Your task to perform on an android device: toggle data saver in the chrome app Image 0: 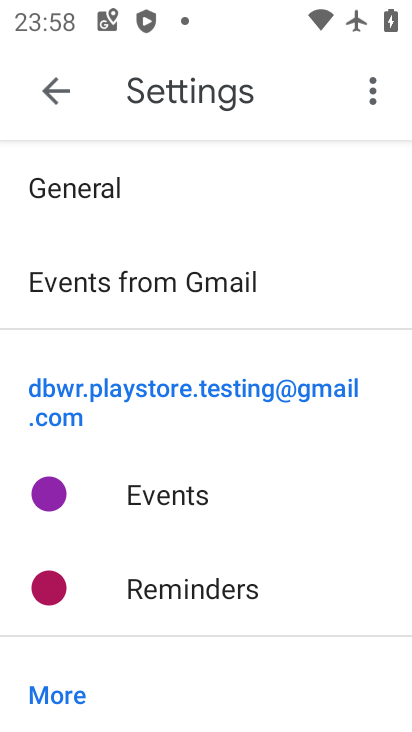
Step 0: press home button
Your task to perform on an android device: toggle data saver in the chrome app Image 1: 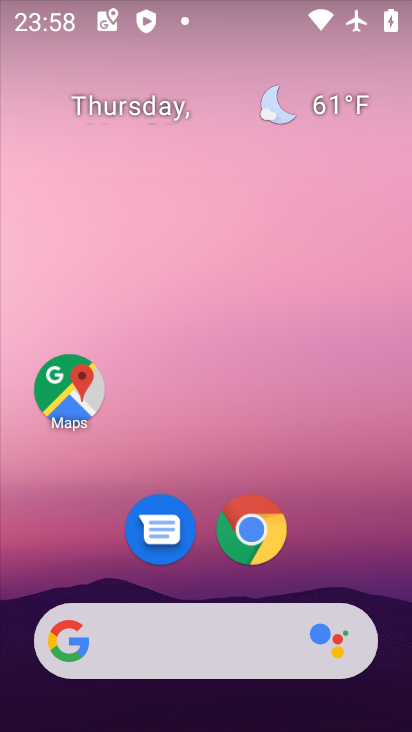
Step 1: click (248, 524)
Your task to perform on an android device: toggle data saver in the chrome app Image 2: 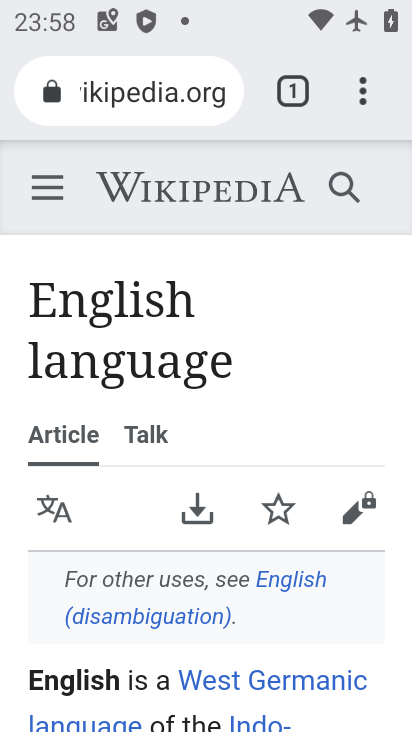
Step 2: click (375, 97)
Your task to perform on an android device: toggle data saver in the chrome app Image 3: 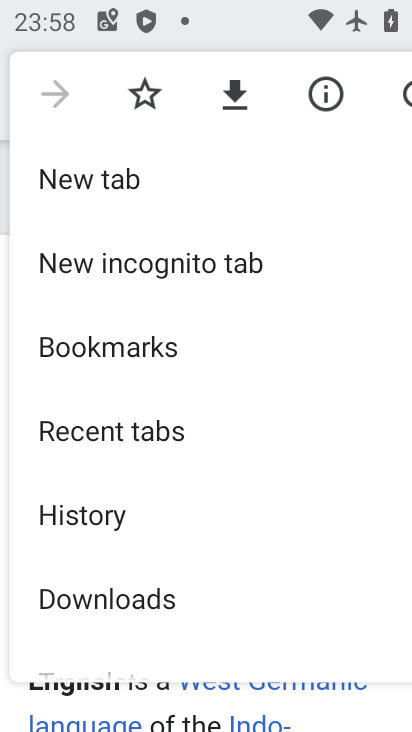
Step 3: drag from (178, 593) to (216, 296)
Your task to perform on an android device: toggle data saver in the chrome app Image 4: 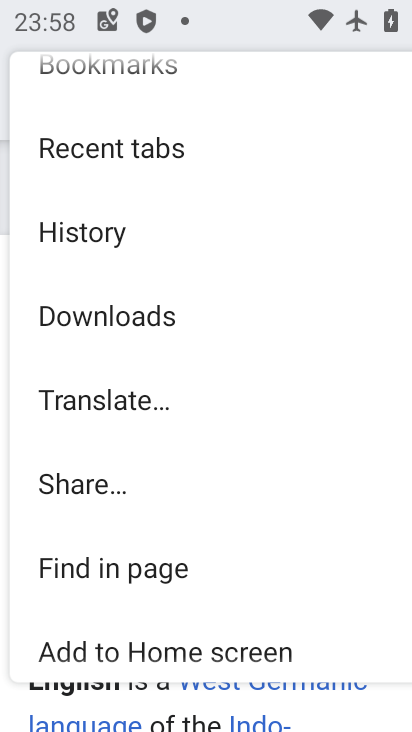
Step 4: drag from (179, 535) to (208, 300)
Your task to perform on an android device: toggle data saver in the chrome app Image 5: 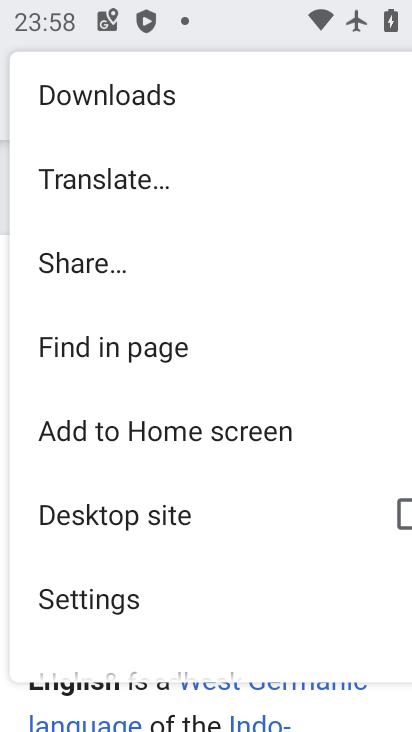
Step 5: click (143, 586)
Your task to perform on an android device: toggle data saver in the chrome app Image 6: 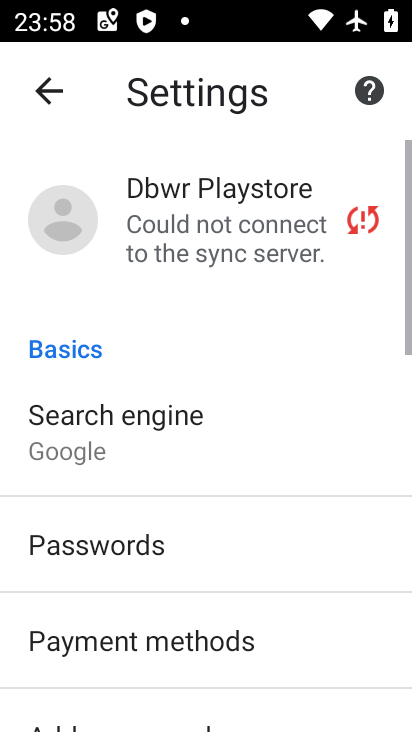
Step 6: click (143, 586)
Your task to perform on an android device: toggle data saver in the chrome app Image 7: 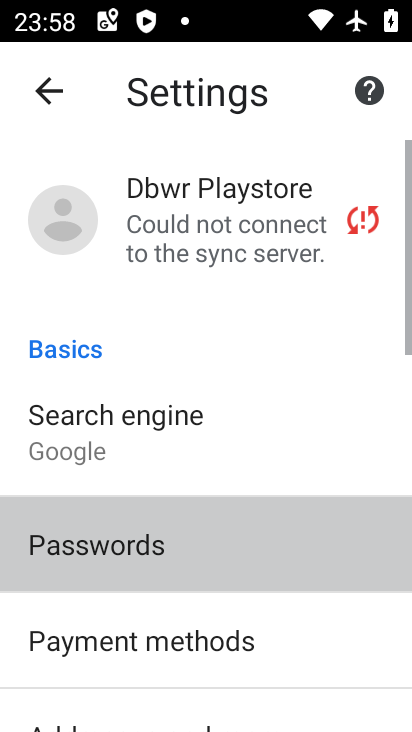
Step 7: drag from (121, 623) to (176, 308)
Your task to perform on an android device: toggle data saver in the chrome app Image 8: 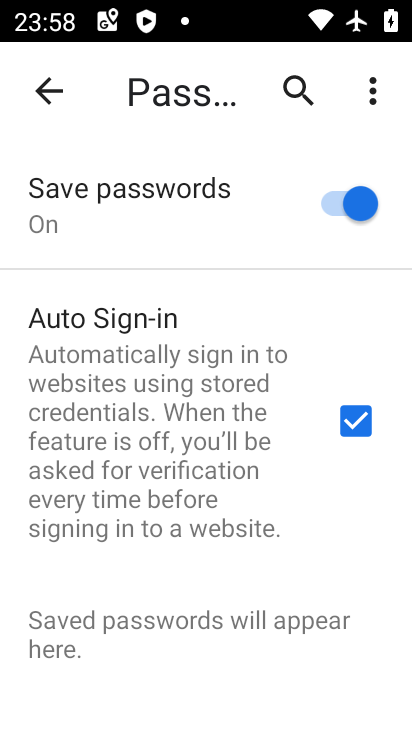
Step 8: click (51, 77)
Your task to perform on an android device: toggle data saver in the chrome app Image 9: 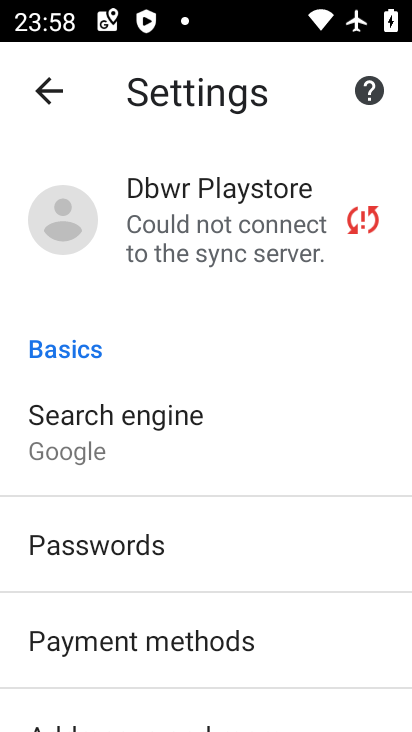
Step 9: drag from (240, 555) to (272, 145)
Your task to perform on an android device: toggle data saver in the chrome app Image 10: 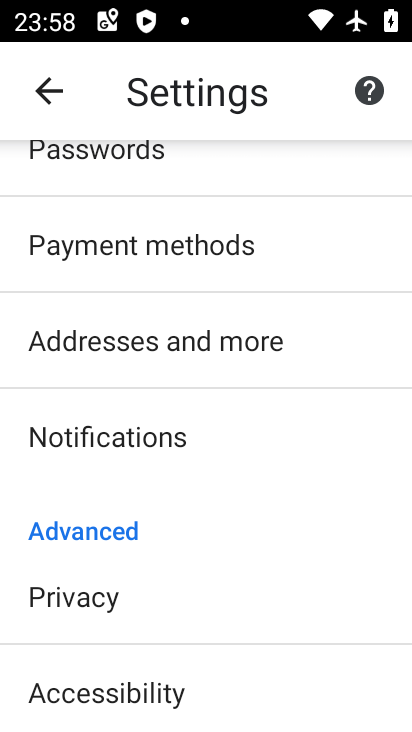
Step 10: drag from (208, 572) to (233, 387)
Your task to perform on an android device: toggle data saver in the chrome app Image 11: 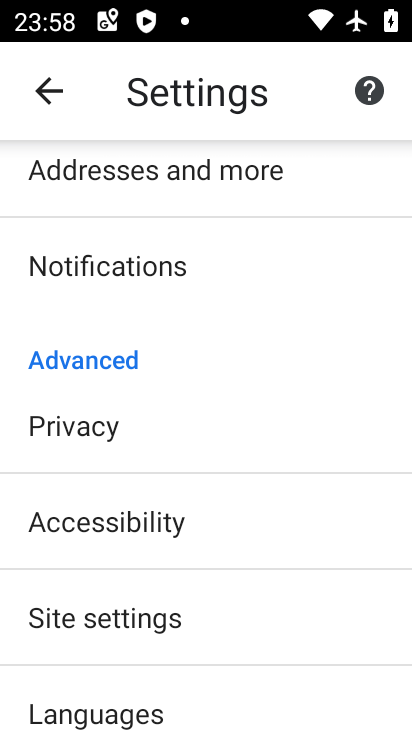
Step 11: drag from (215, 622) to (240, 370)
Your task to perform on an android device: toggle data saver in the chrome app Image 12: 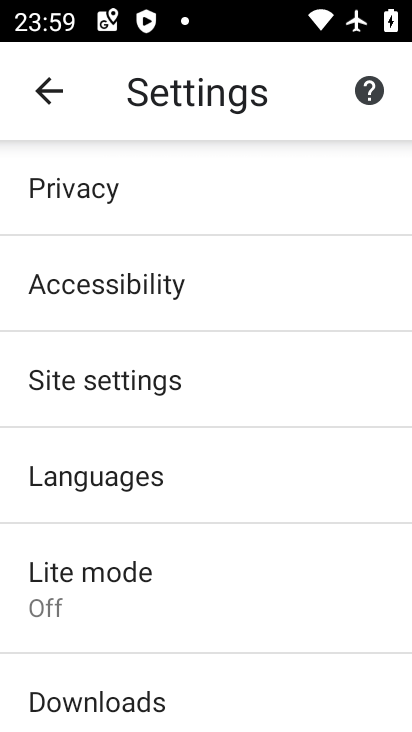
Step 12: click (182, 562)
Your task to perform on an android device: toggle data saver in the chrome app Image 13: 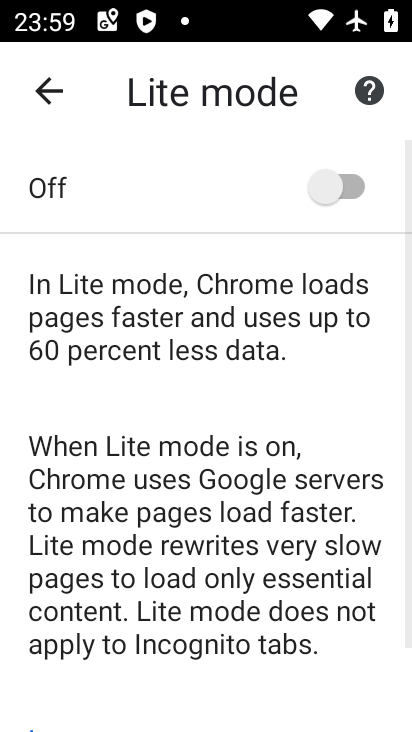
Step 13: click (340, 191)
Your task to perform on an android device: toggle data saver in the chrome app Image 14: 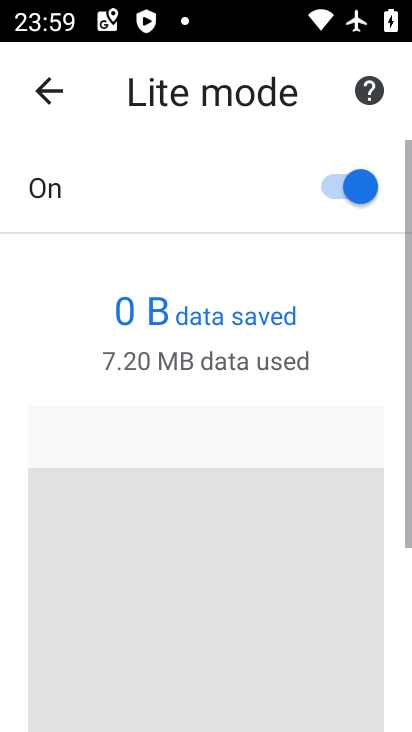
Step 14: task complete